Your task to perform on an android device: Show the shopping cart on ebay. Add logitech g910 to the cart on ebay, then select checkout. Image 0: 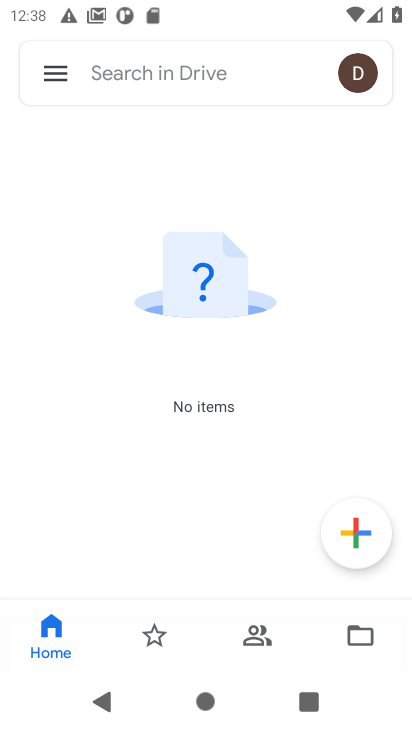
Step 0: press home button
Your task to perform on an android device: Show the shopping cart on ebay. Add logitech g910 to the cart on ebay, then select checkout. Image 1: 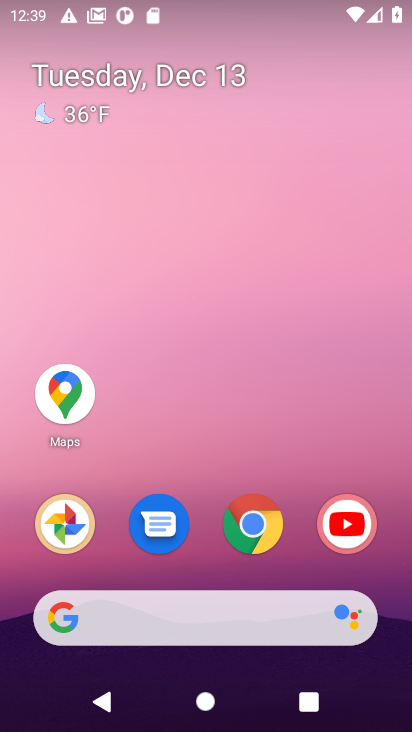
Step 1: click (256, 527)
Your task to perform on an android device: Show the shopping cart on ebay. Add logitech g910 to the cart on ebay, then select checkout. Image 2: 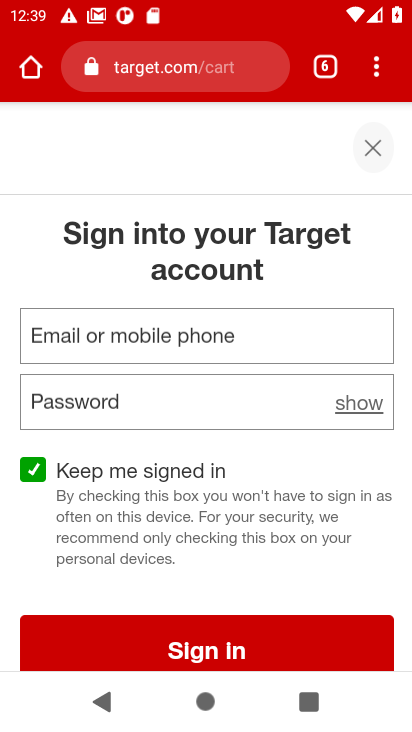
Step 2: click (142, 72)
Your task to perform on an android device: Show the shopping cart on ebay. Add logitech g910 to the cart on ebay, then select checkout. Image 3: 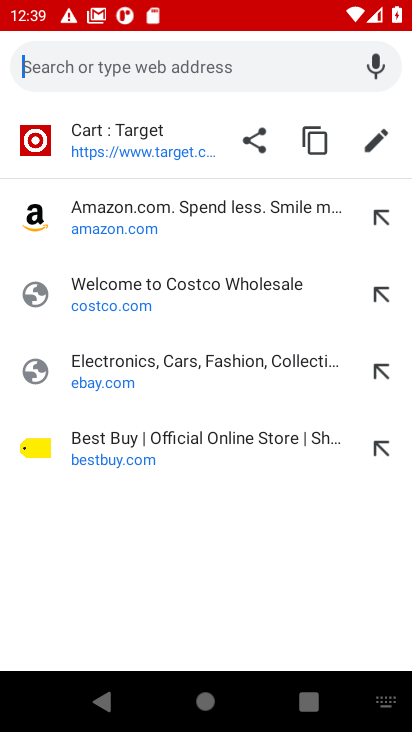
Step 3: click (91, 380)
Your task to perform on an android device: Show the shopping cart on ebay. Add logitech g910 to the cart on ebay, then select checkout. Image 4: 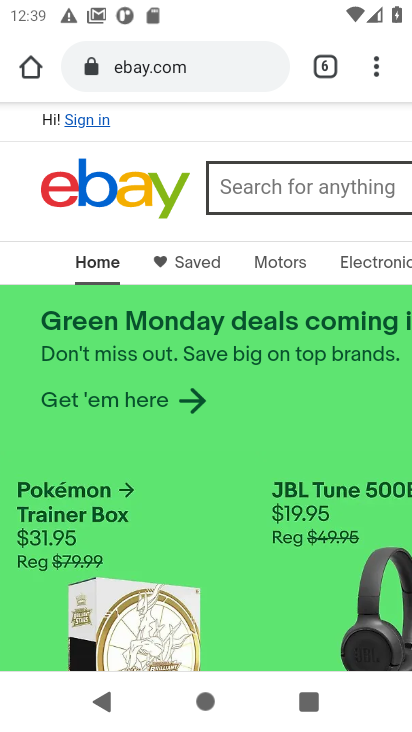
Step 4: drag from (254, 160) to (3, 168)
Your task to perform on an android device: Show the shopping cart on ebay. Add logitech g910 to the cart on ebay, then select checkout. Image 5: 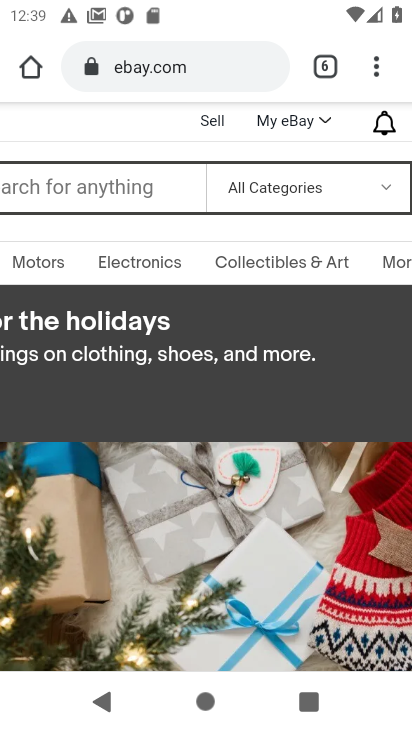
Step 5: drag from (347, 148) to (10, 128)
Your task to perform on an android device: Show the shopping cart on ebay. Add logitech g910 to the cart on ebay, then select checkout. Image 6: 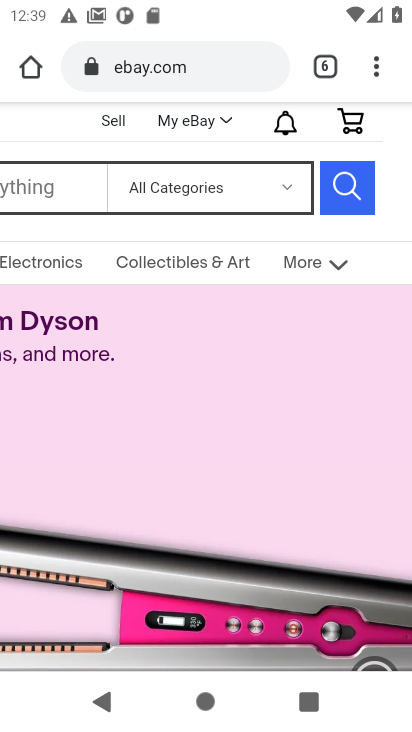
Step 6: click (343, 123)
Your task to perform on an android device: Show the shopping cart on ebay. Add logitech g910 to the cart on ebay, then select checkout. Image 7: 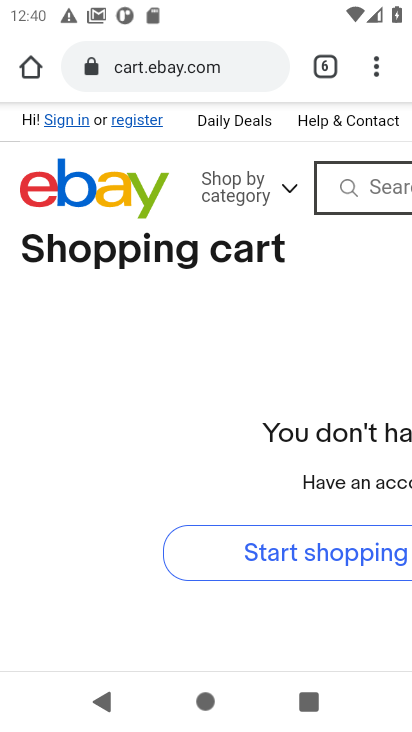
Step 7: click (369, 189)
Your task to perform on an android device: Show the shopping cart on ebay. Add logitech g910 to the cart on ebay, then select checkout. Image 8: 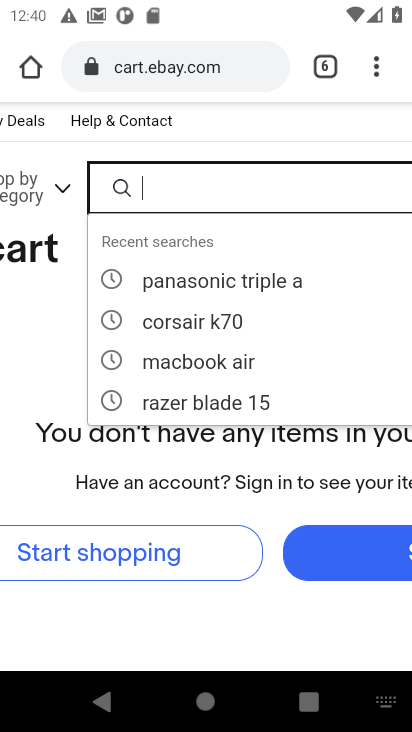
Step 8: type " logitech g910"
Your task to perform on an android device: Show the shopping cart on ebay. Add logitech g910 to the cart on ebay, then select checkout. Image 9: 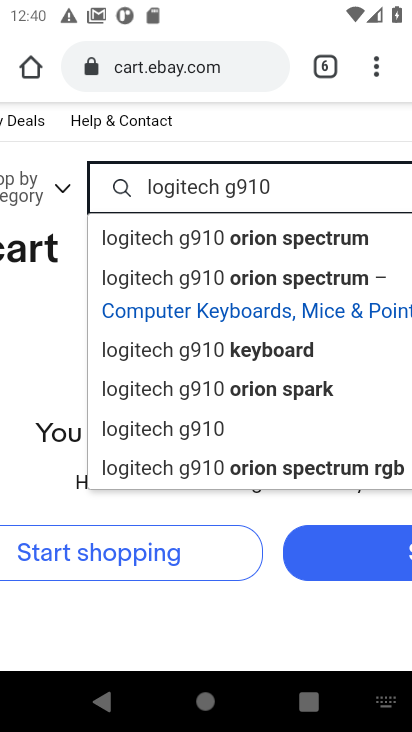
Step 9: click (195, 436)
Your task to perform on an android device: Show the shopping cart on ebay. Add logitech g910 to the cart on ebay, then select checkout. Image 10: 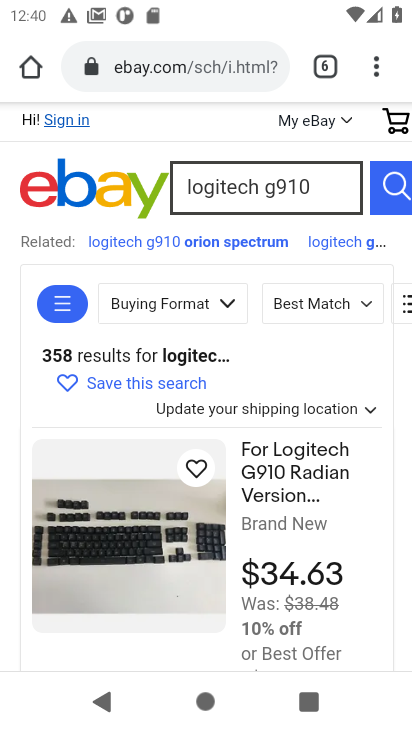
Step 10: drag from (262, 521) to (253, 298)
Your task to perform on an android device: Show the shopping cart on ebay. Add logitech g910 to the cart on ebay, then select checkout. Image 11: 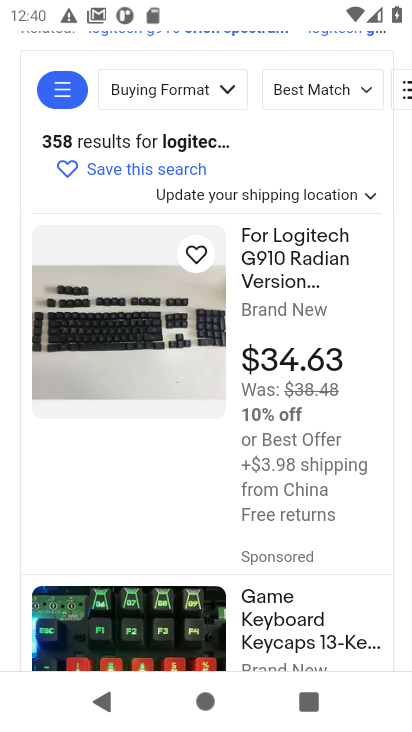
Step 11: click (267, 280)
Your task to perform on an android device: Show the shopping cart on ebay. Add logitech g910 to the cart on ebay, then select checkout. Image 12: 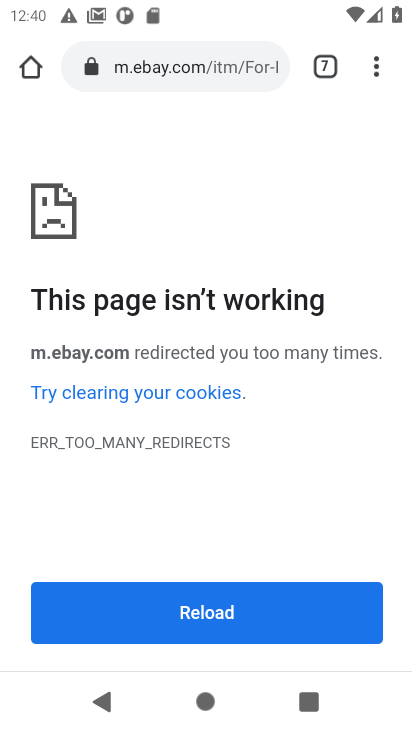
Step 12: task complete